Your task to perform on an android device: turn off improve location accuracy Image 0: 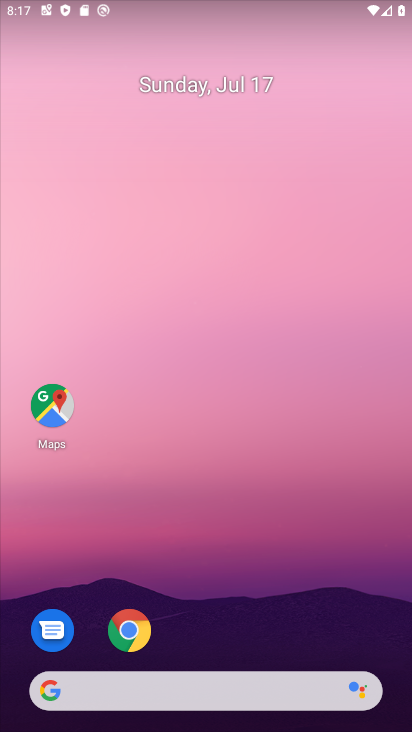
Step 0: drag from (158, 703) to (295, 77)
Your task to perform on an android device: turn off improve location accuracy Image 1: 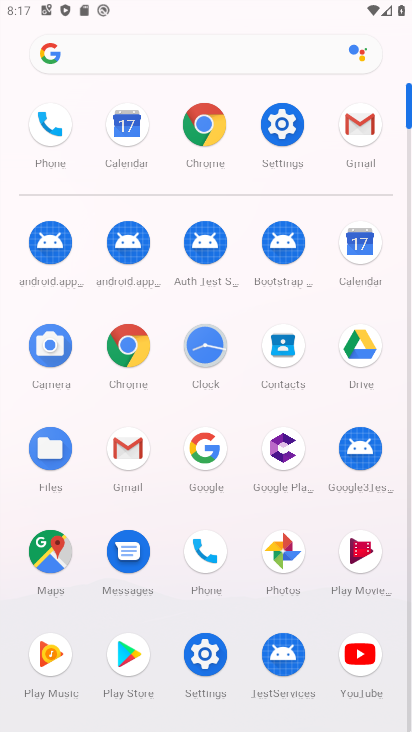
Step 1: click (291, 136)
Your task to perform on an android device: turn off improve location accuracy Image 2: 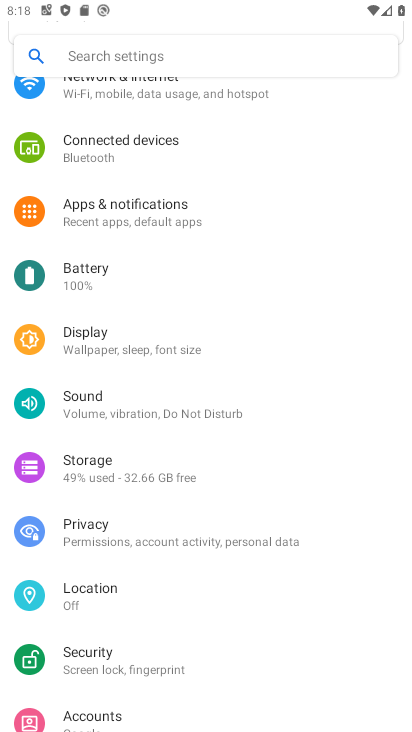
Step 2: click (130, 599)
Your task to perform on an android device: turn off improve location accuracy Image 3: 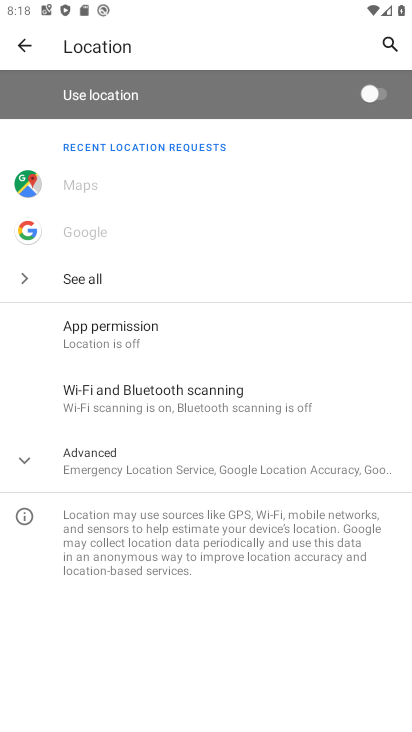
Step 3: click (209, 471)
Your task to perform on an android device: turn off improve location accuracy Image 4: 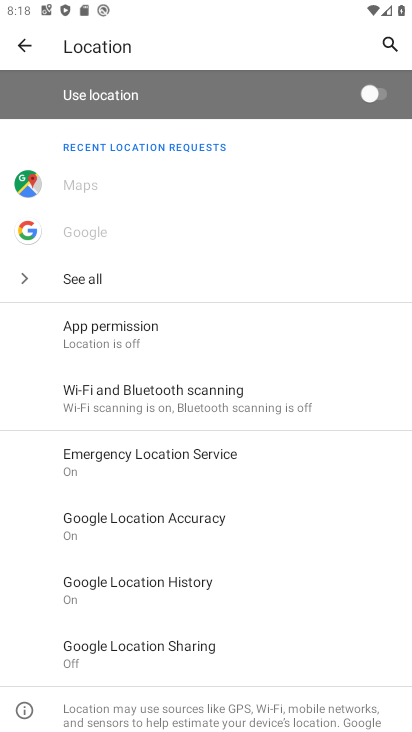
Step 4: click (177, 522)
Your task to perform on an android device: turn off improve location accuracy Image 5: 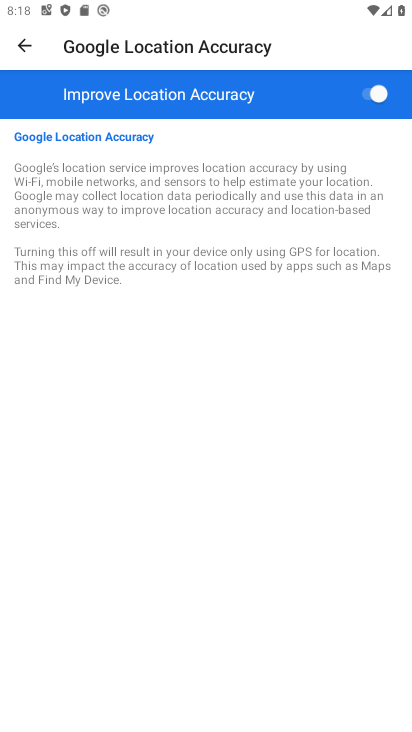
Step 5: click (369, 96)
Your task to perform on an android device: turn off improve location accuracy Image 6: 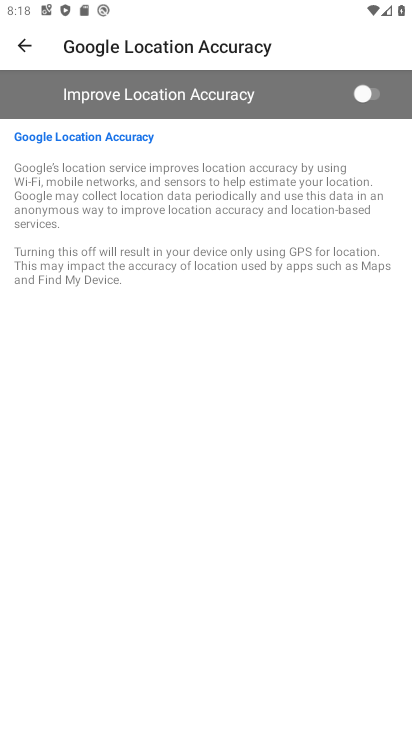
Step 6: task complete